Your task to perform on an android device: allow cookies in the chrome app Image 0: 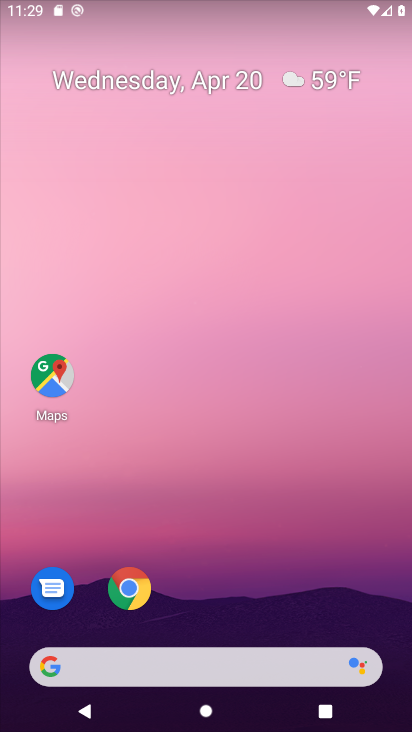
Step 0: click (130, 587)
Your task to perform on an android device: allow cookies in the chrome app Image 1: 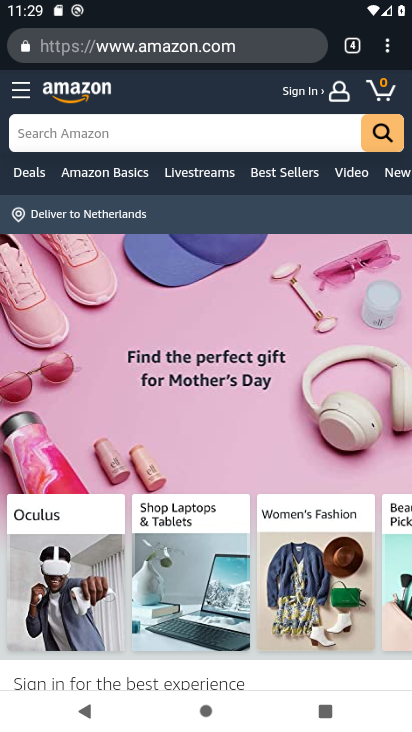
Step 1: click (386, 53)
Your task to perform on an android device: allow cookies in the chrome app Image 2: 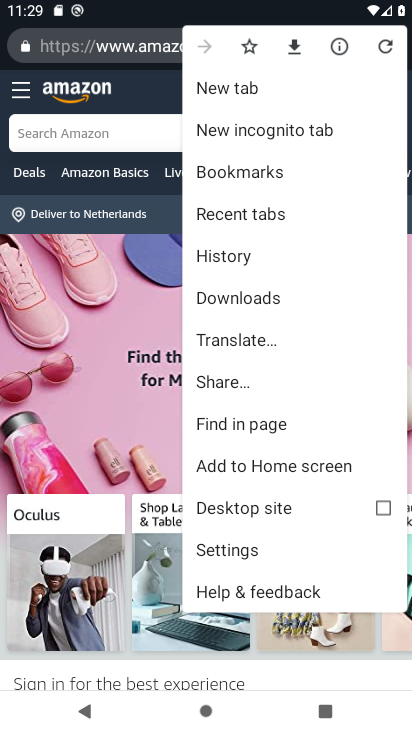
Step 2: click (219, 550)
Your task to perform on an android device: allow cookies in the chrome app Image 3: 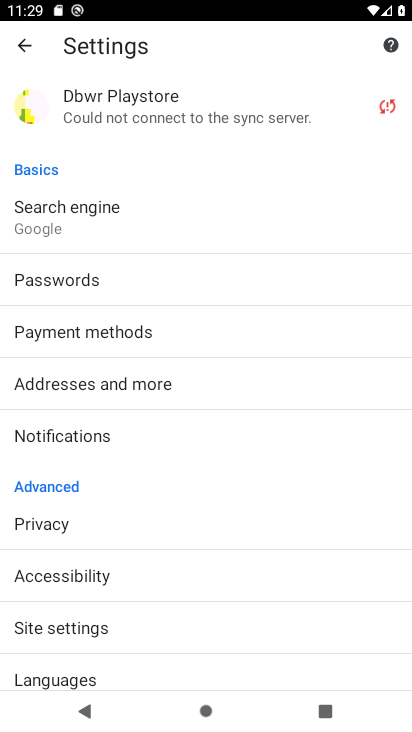
Step 3: click (56, 628)
Your task to perform on an android device: allow cookies in the chrome app Image 4: 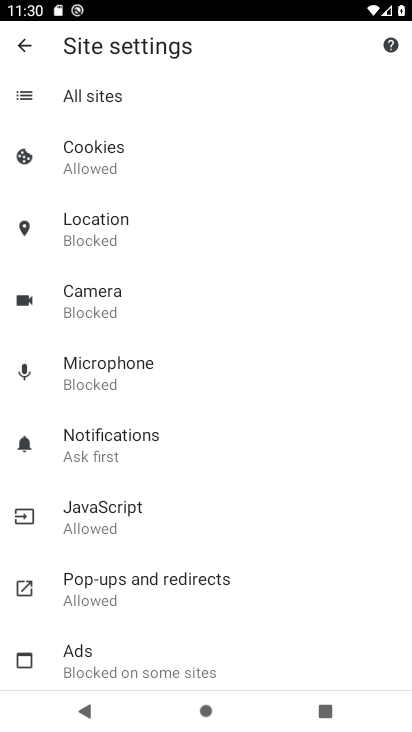
Step 4: click (82, 151)
Your task to perform on an android device: allow cookies in the chrome app Image 5: 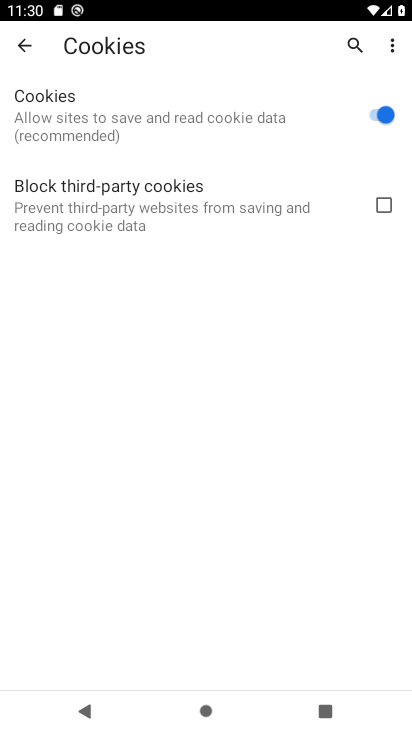
Step 5: task complete